Your task to perform on an android device: Go to CNN.com Image 0: 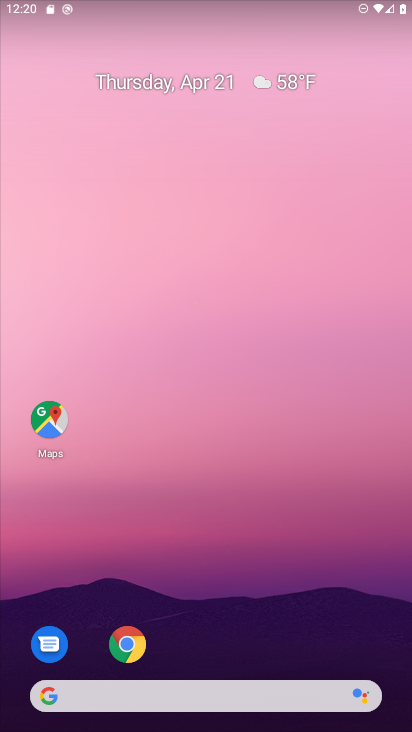
Step 0: click (124, 644)
Your task to perform on an android device: Go to CNN.com Image 1: 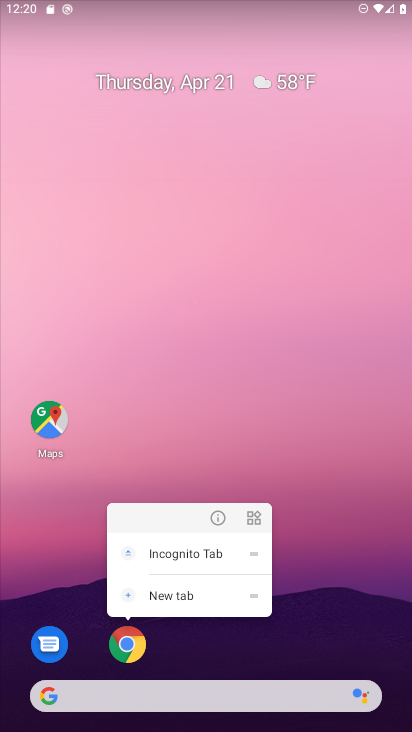
Step 1: click (228, 512)
Your task to perform on an android device: Go to CNN.com Image 2: 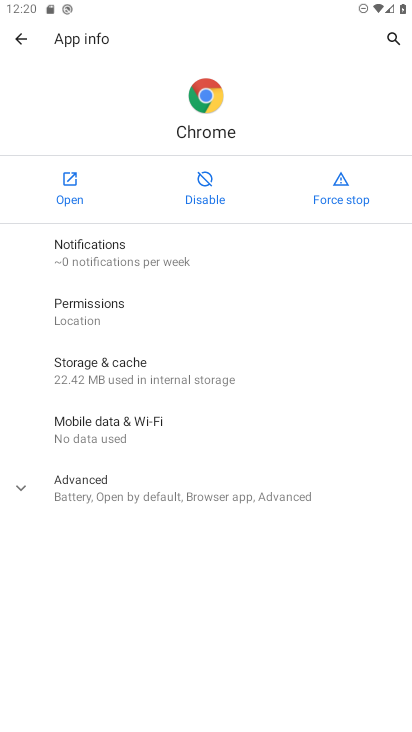
Step 2: click (57, 189)
Your task to perform on an android device: Go to CNN.com Image 3: 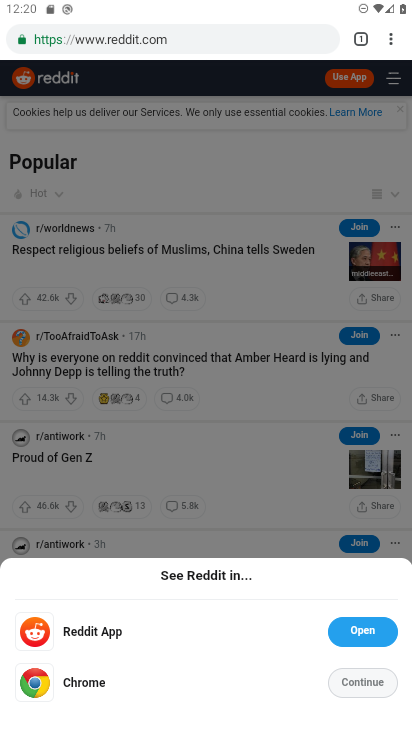
Step 3: click (357, 679)
Your task to perform on an android device: Go to CNN.com Image 4: 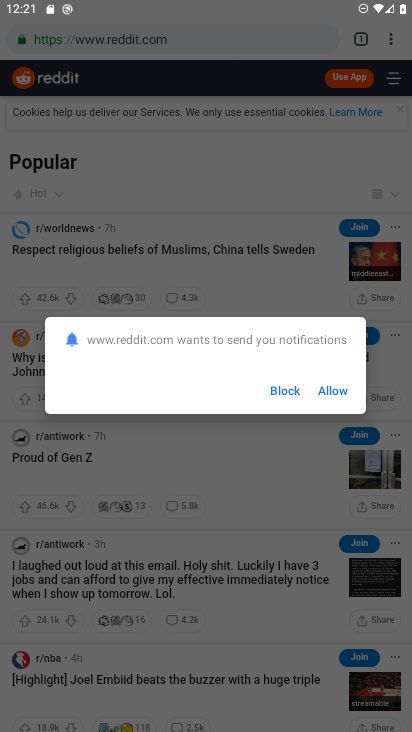
Step 4: click (325, 386)
Your task to perform on an android device: Go to CNN.com Image 5: 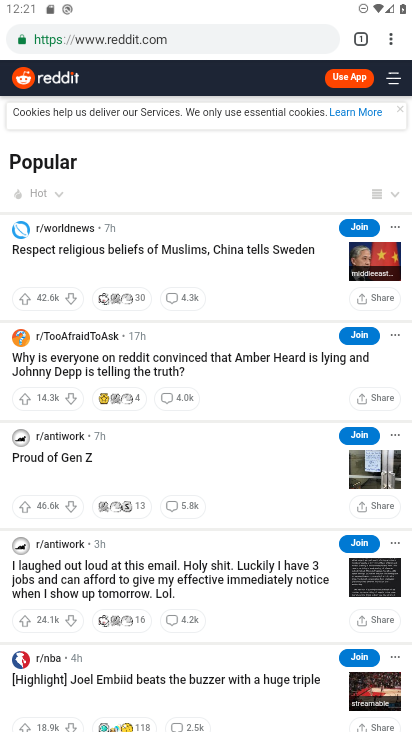
Step 5: click (122, 42)
Your task to perform on an android device: Go to CNN.com Image 6: 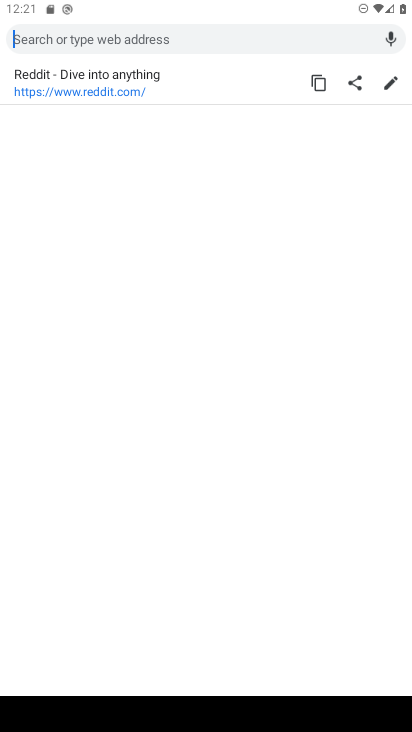
Step 6: type "CNN.com"
Your task to perform on an android device: Go to CNN.com Image 7: 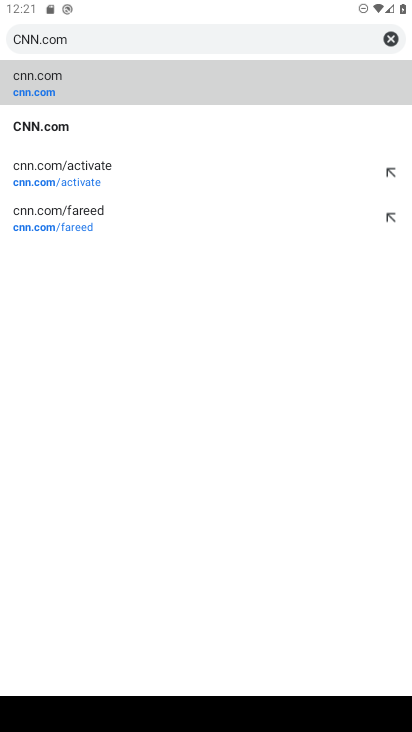
Step 7: click (88, 87)
Your task to perform on an android device: Go to CNN.com Image 8: 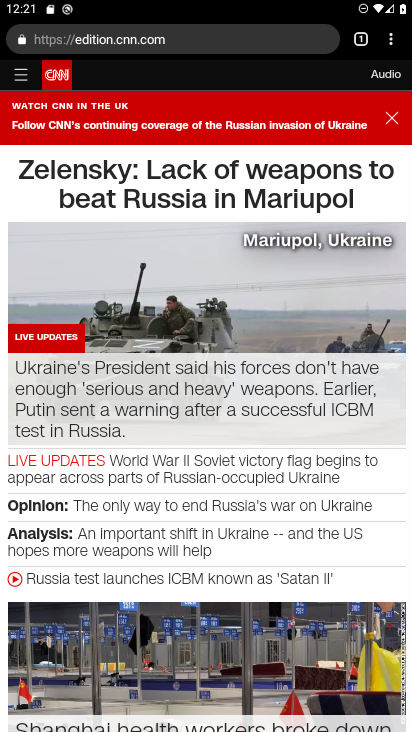
Step 8: task complete